Your task to perform on an android device: turn pop-ups off in chrome Image 0: 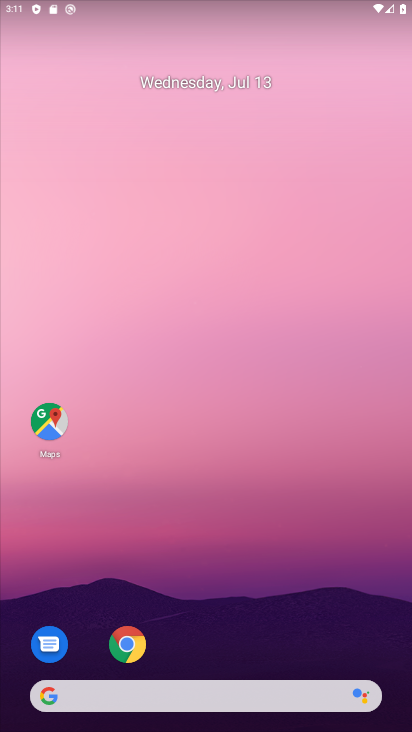
Step 0: drag from (268, 142) to (208, 3)
Your task to perform on an android device: turn pop-ups off in chrome Image 1: 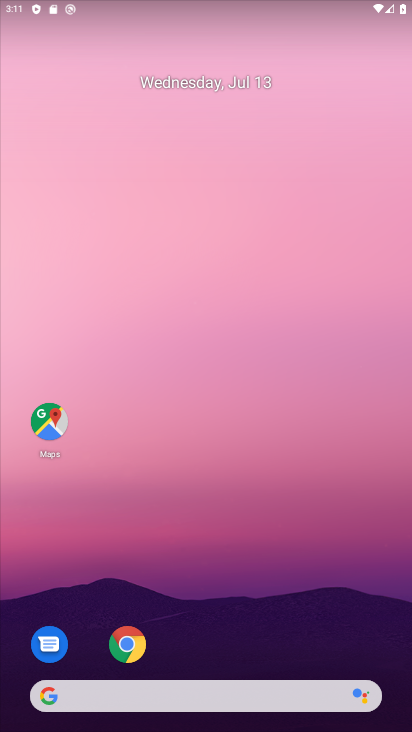
Step 1: click (129, 641)
Your task to perform on an android device: turn pop-ups off in chrome Image 2: 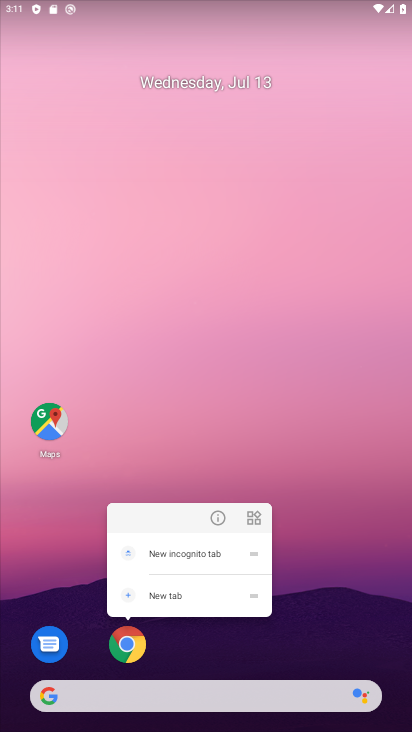
Step 2: click (218, 516)
Your task to perform on an android device: turn pop-ups off in chrome Image 3: 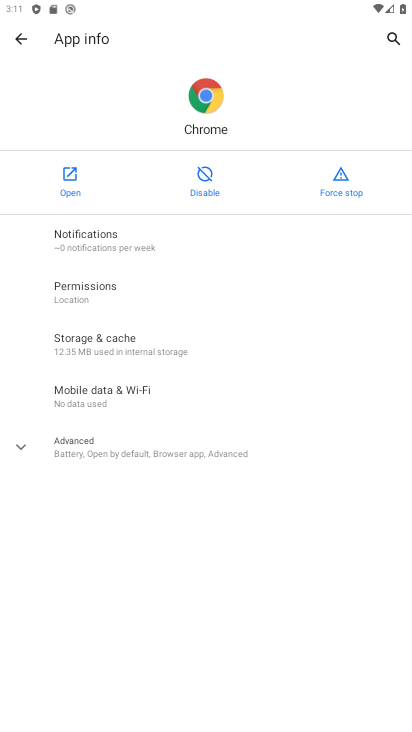
Step 3: click (73, 187)
Your task to perform on an android device: turn pop-ups off in chrome Image 4: 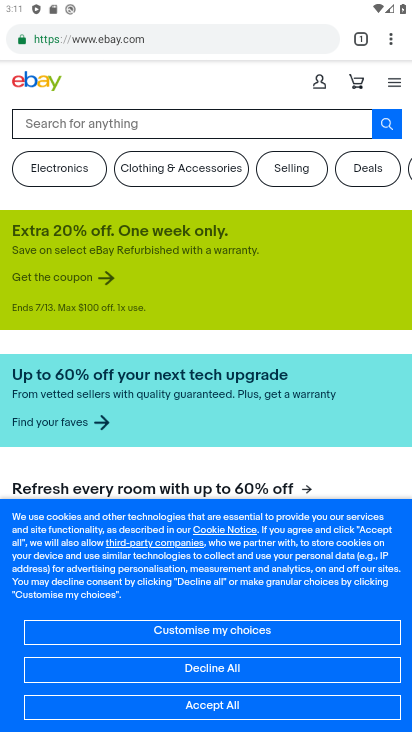
Step 4: drag from (265, 524) to (309, 281)
Your task to perform on an android device: turn pop-ups off in chrome Image 5: 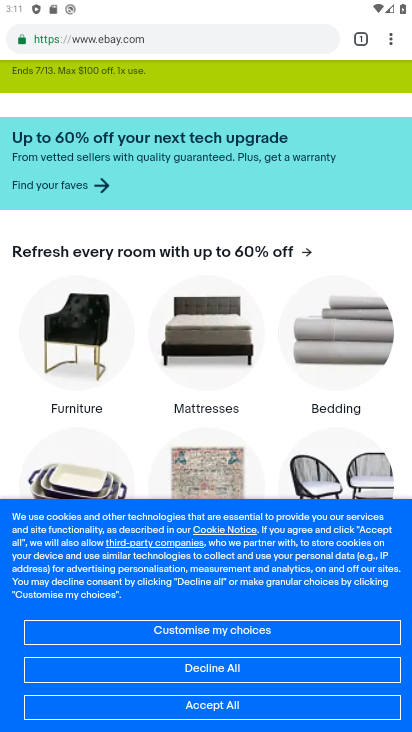
Step 5: drag from (187, 567) to (227, 328)
Your task to perform on an android device: turn pop-ups off in chrome Image 6: 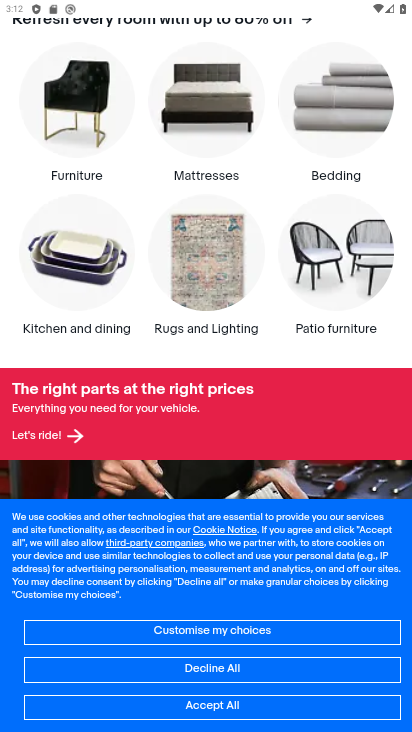
Step 6: drag from (384, 90) to (356, 654)
Your task to perform on an android device: turn pop-ups off in chrome Image 7: 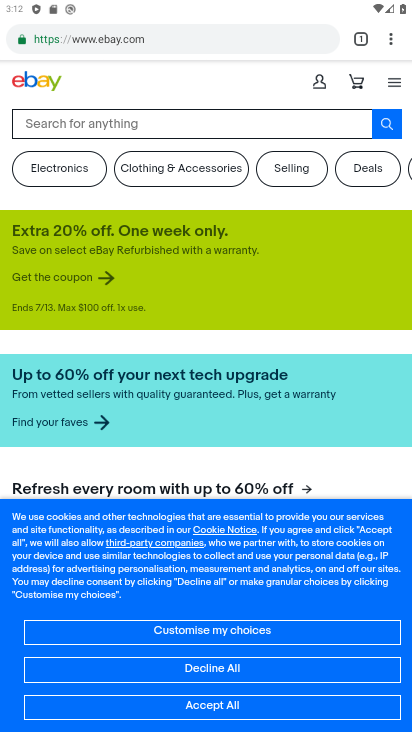
Step 7: click (387, 39)
Your task to perform on an android device: turn pop-ups off in chrome Image 8: 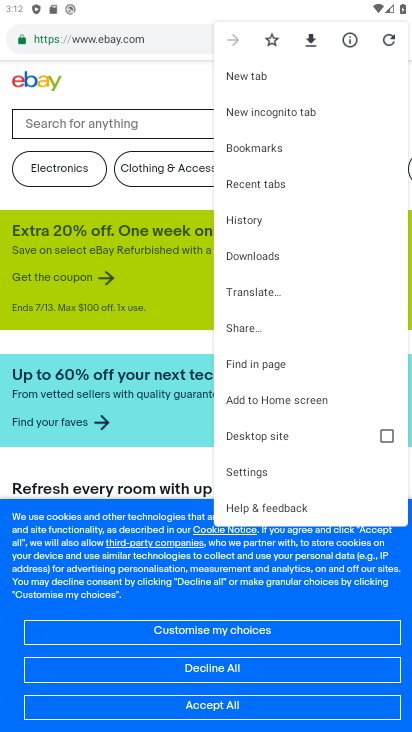
Step 8: click (267, 476)
Your task to perform on an android device: turn pop-ups off in chrome Image 9: 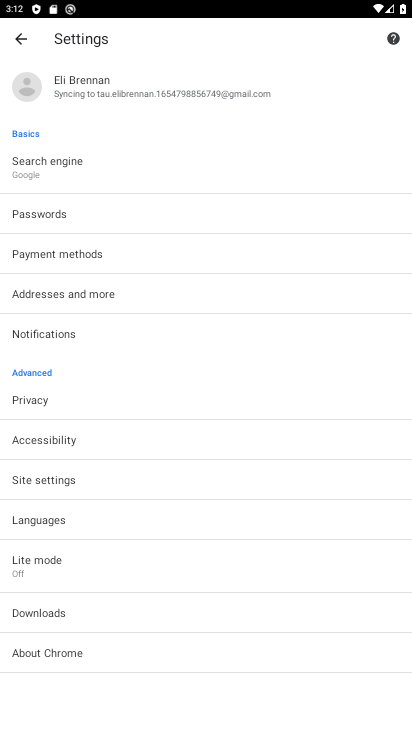
Step 9: click (104, 467)
Your task to perform on an android device: turn pop-ups off in chrome Image 10: 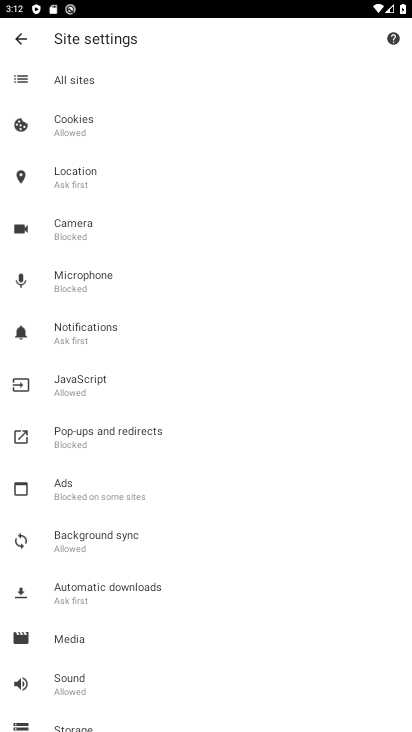
Step 10: click (85, 439)
Your task to perform on an android device: turn pop-ups off in chrome Image 11: 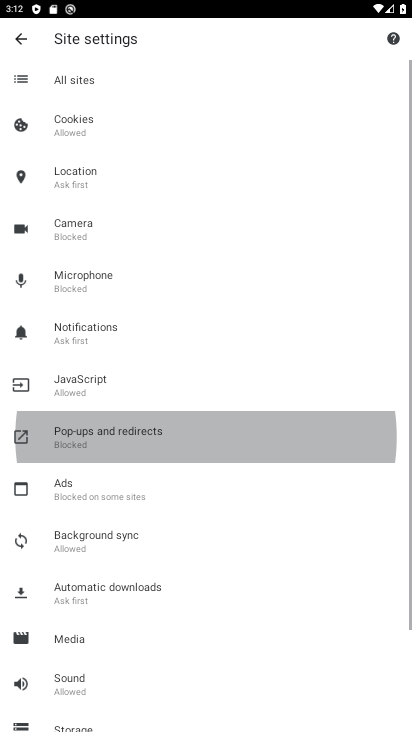
Step 11: click (85, 439)
Your task to perform on an android device: turn pop-ups off in chrome Image 12: 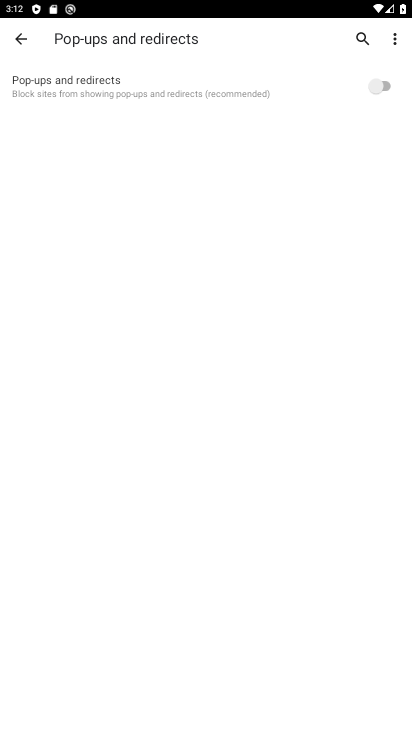
Step 12: task complete